Your task to perform on an android device: allow cookies in the chrome app Image 0: 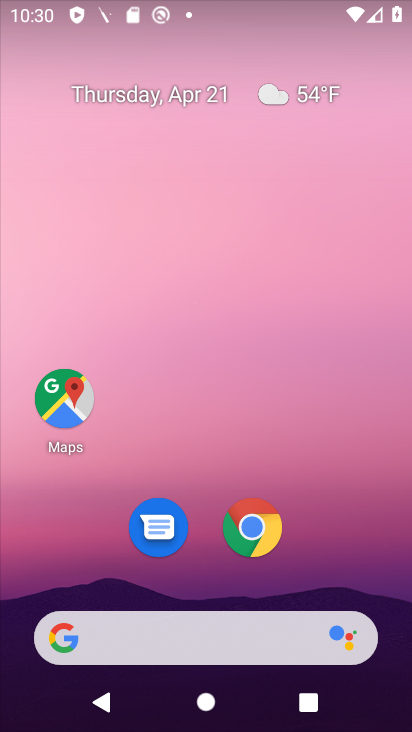
Step 0: click (268, 530)
Your task to perform on an android device: allow cookies in the chrome app Image 1: 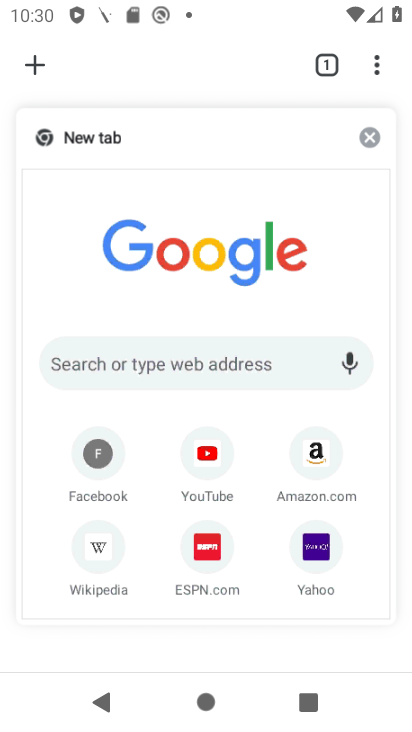
Step 1: click (158, 365)
Your task to perform on an android device: allow cookies in the chrome app Image 2: 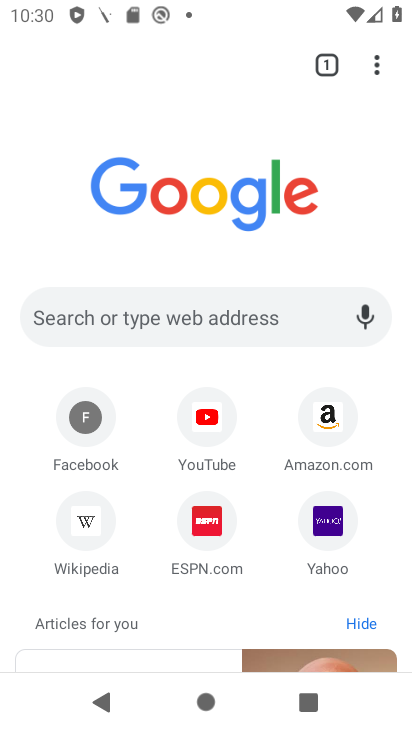
Step 2: click (378, 69)
Your task to perform on an android device: allow cookies in the chrome app Image 3: 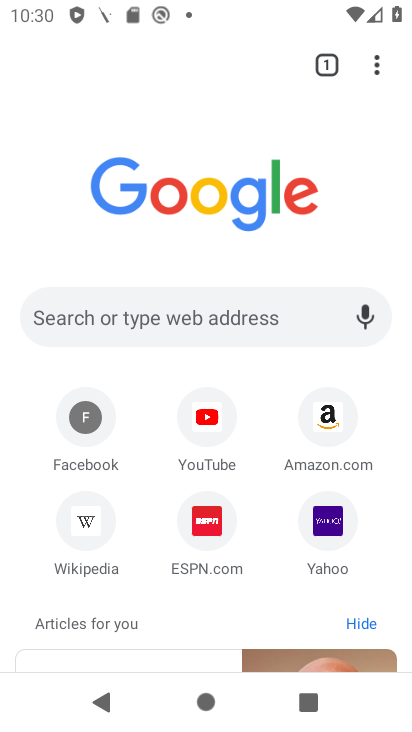
Step 3: drag from (380, 68) to (273, 550)
Your task to perform on an android device: allow cookies in the chrome app Image 4: 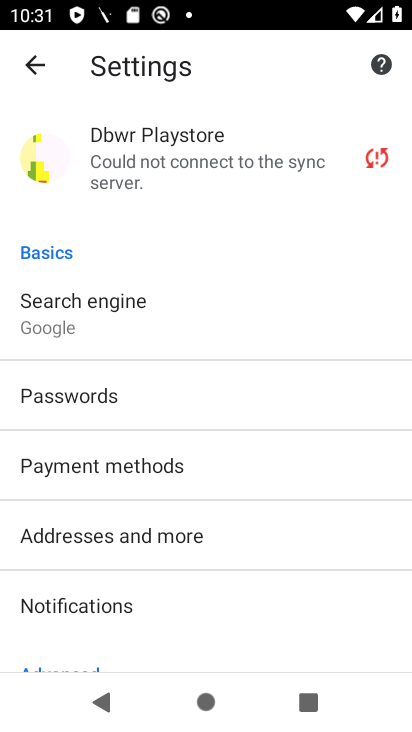
Step 4: drag from (205, 644) to (190, 159)
Your task to perform on an android device: allow cookies in the chrome app Image 5: 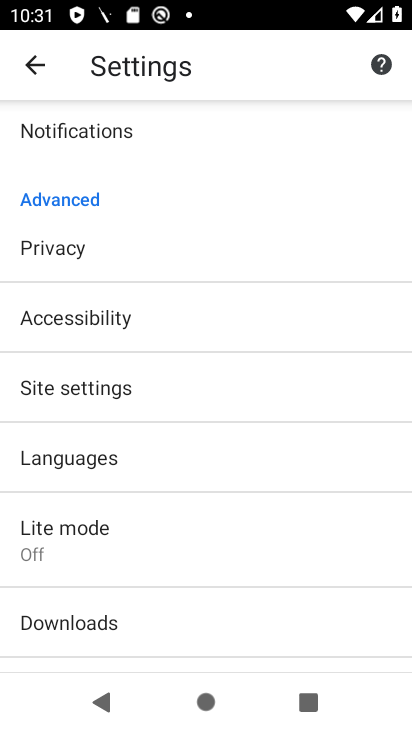
Step 5: click (128, 390)
Your task to perform on an android device: allow cookies in the chrome app Image 6: 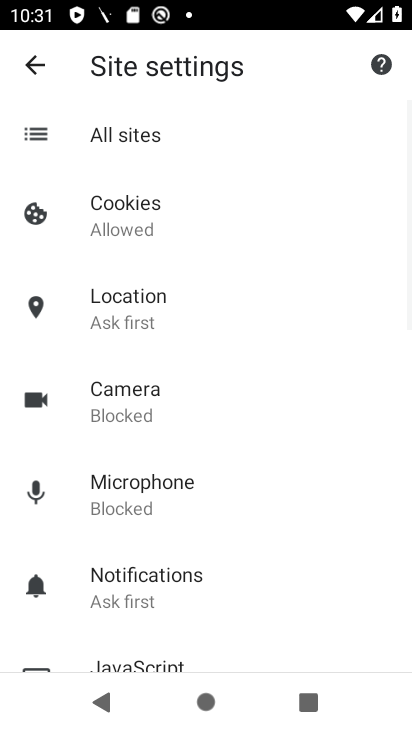
Step 6: click (159, 209)
Your task to perform on an android device: allow cookies in the chrome app Image 7: 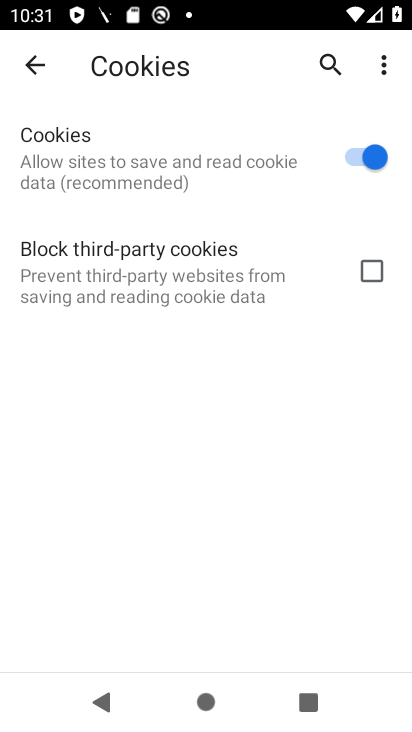
Step 7: task complete